Your task to perform on an android device: open the mobile data screen to see how much data has been used Image 0: 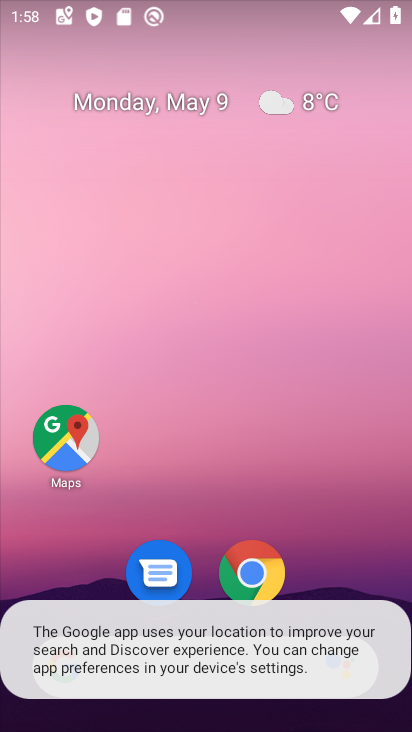
Step 0: drag from (198, 585) to (231, 183)
Your task to perform on an android device: open the mobile data screen to see how much data has been used Image 1: 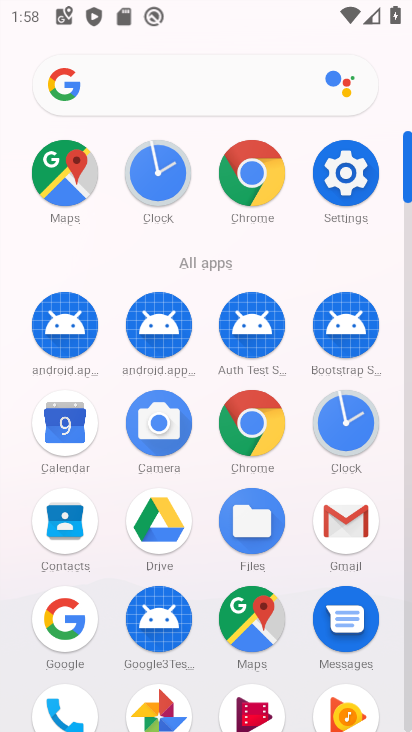
Step 1: click (349, 168)
Your task to perform on an android device: open the mobile data screen to see how much data has been used Image 2: 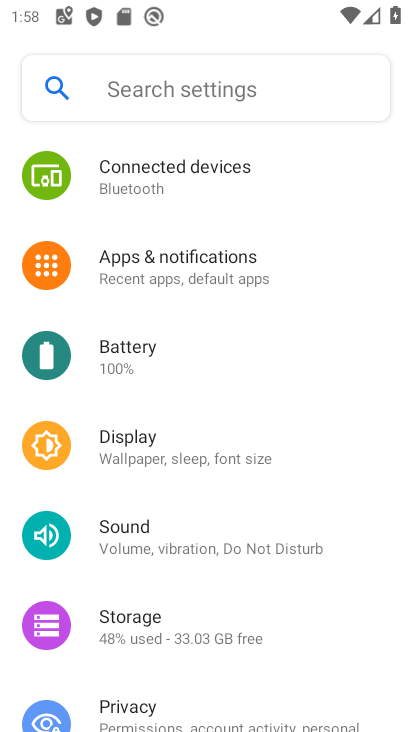
Step 2: drag from (165, 196) to (210, 428)
Your task to perform on an android device: open the mobile data screen to see how much data has been used Image 3: 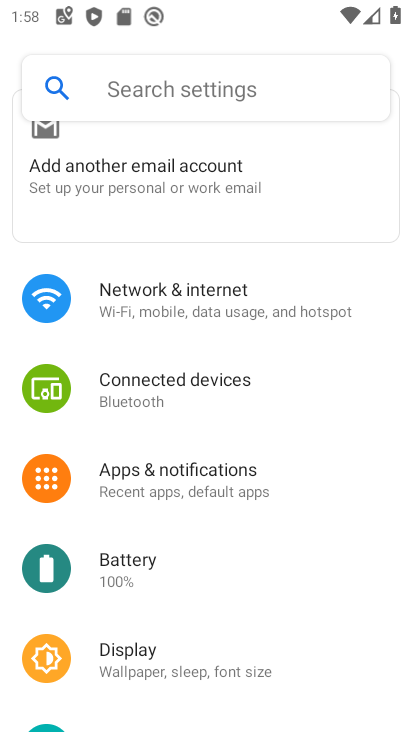
Step 3: click (181, 278)
Your task to perform on an android device: open the mobile data screen to see how much data has been used Image 4: 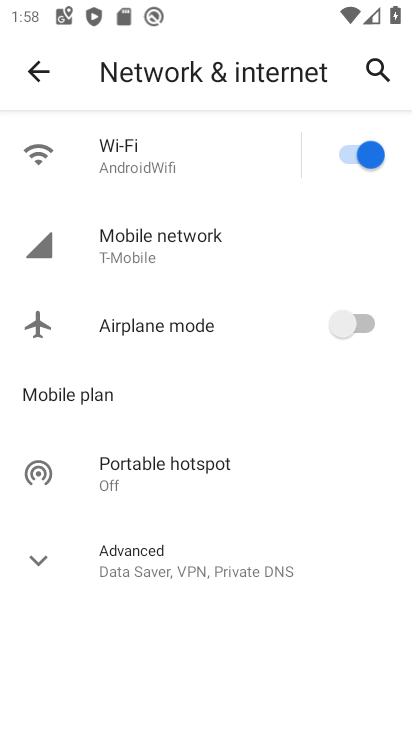
Step 4: click (146, 253)
Your task to perform on an android device: open the mobile data screen to see how much data has been used Image 5: 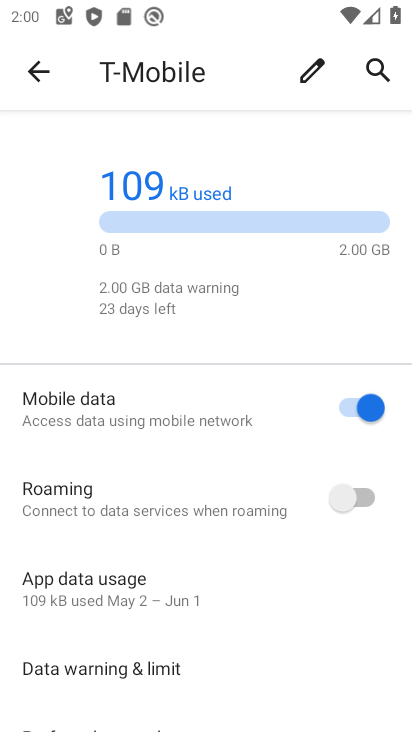
Step 5: task complete